Your task to perform on an android device: set the stopwatch Image 0: 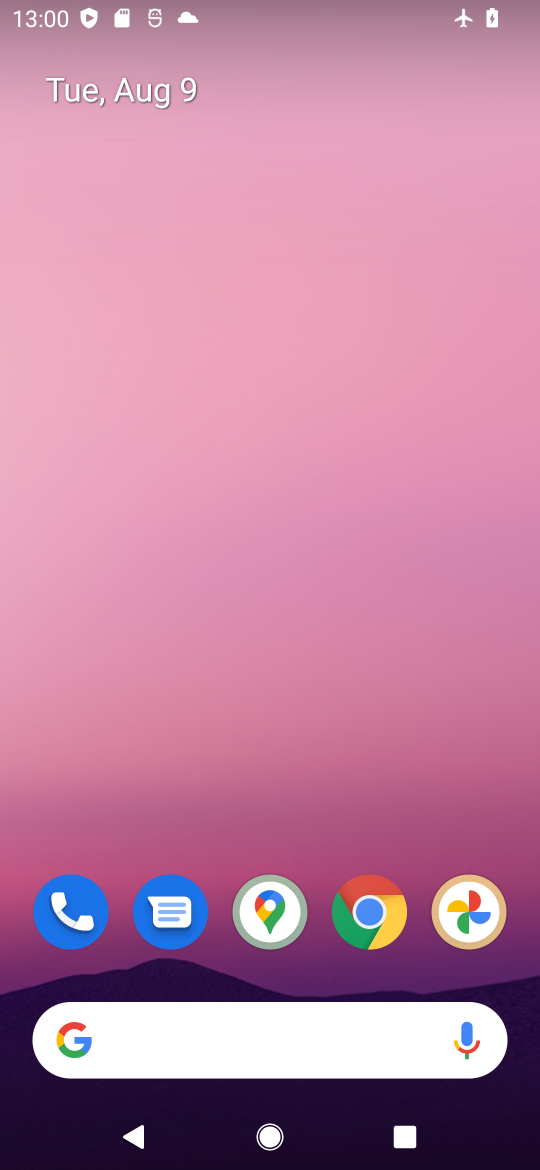
Step 0: drag from (265, 986) to (263, 483)
Your task to perform on an android device: set the stopwatch Image 1: 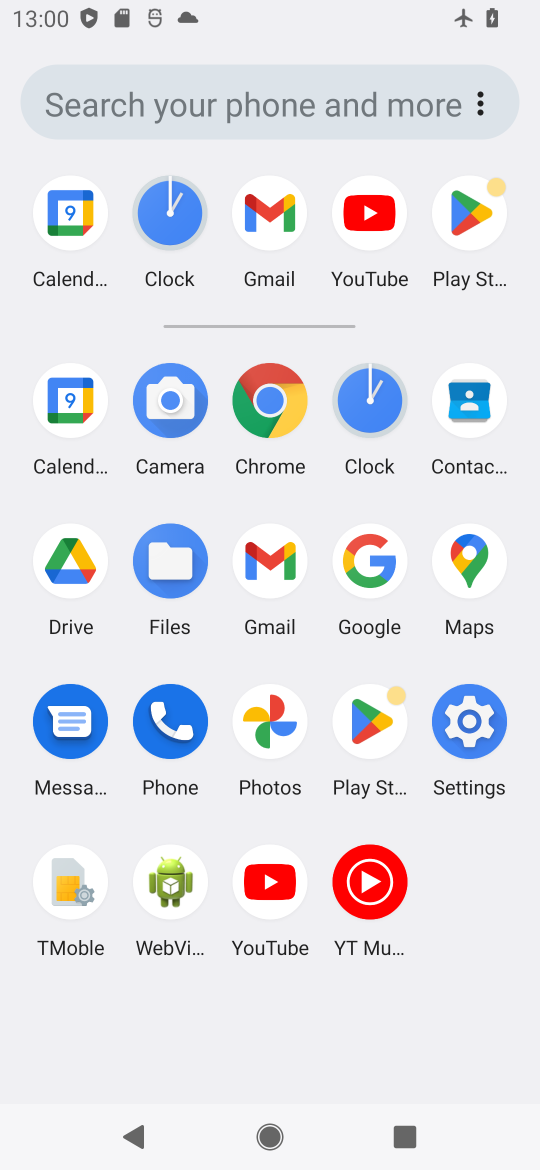
Step 1: click (371, 394)
Your task to perform on an android device: set the stopwatch Image 2: 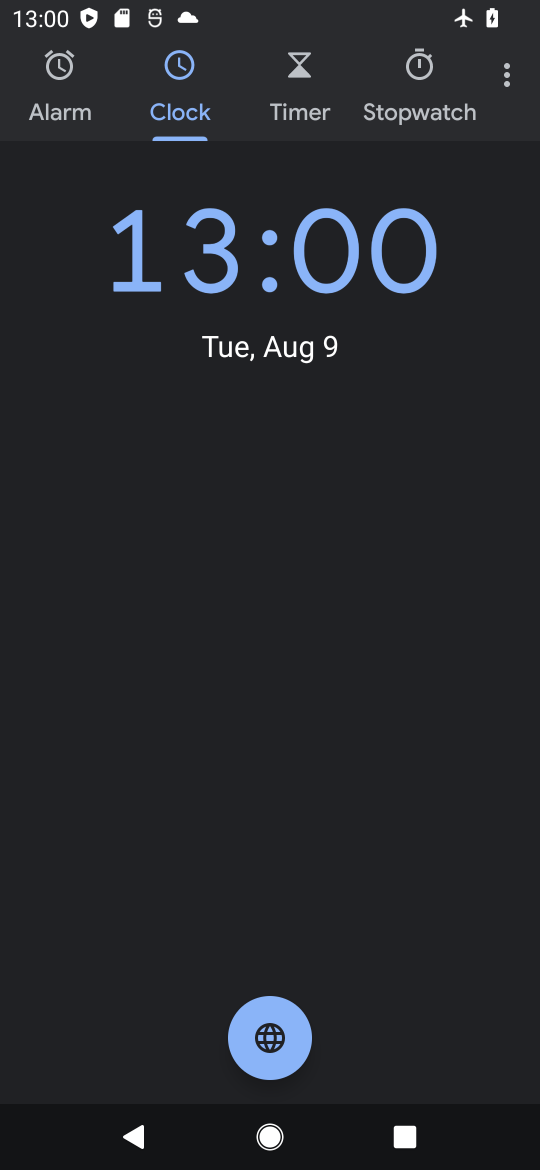
Step 2: click (405, 92)
Your task to perform on an android device: set the stopwatch Image 3: 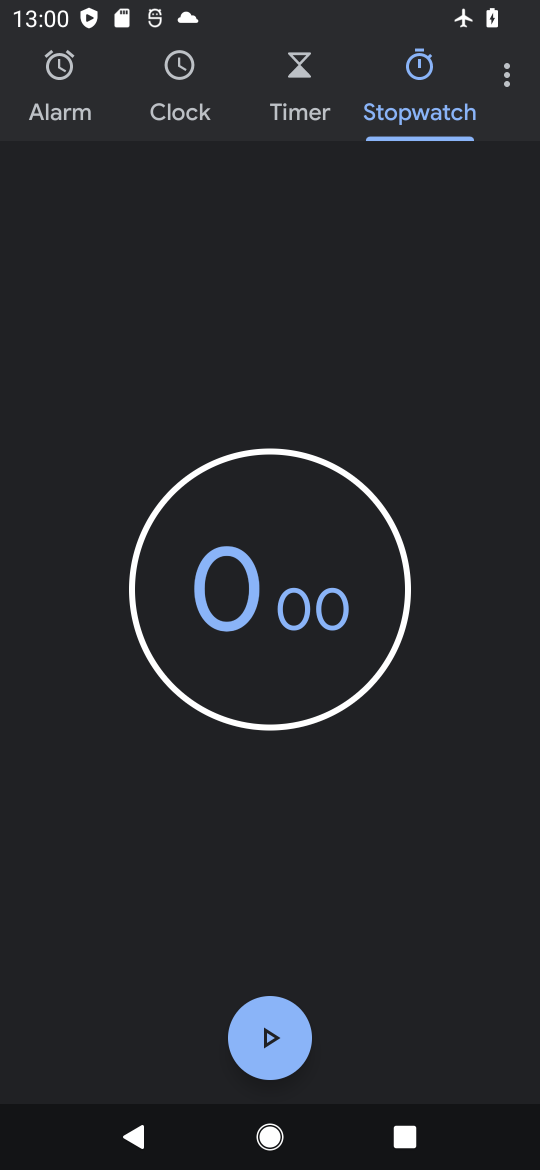
Step 3: task complete